Your task to perform on an android device: Go to Google Image 0: 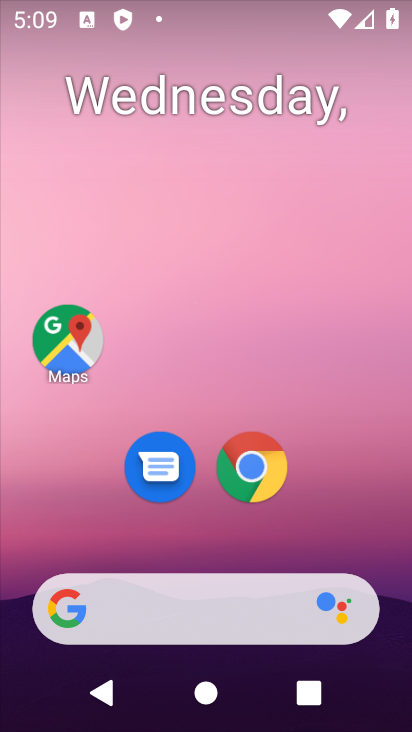
Step 0: drag from (319, 523) to (130, 44)
Your task to perform on an android device: Go to Google Image 1: 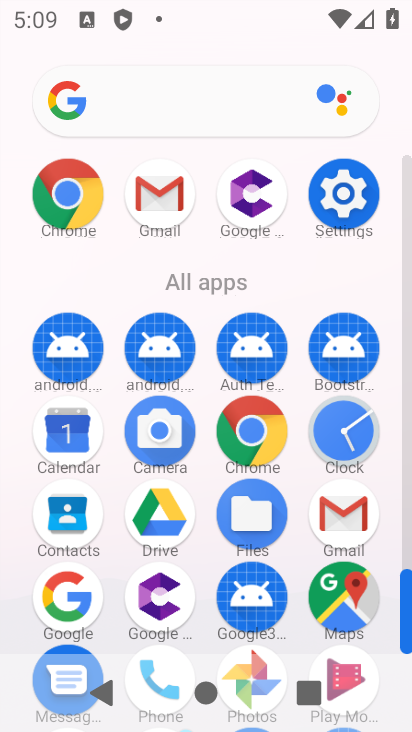
Step 1: click (68, 599)
Your task to perform on an android device: Go to Google Image 2: 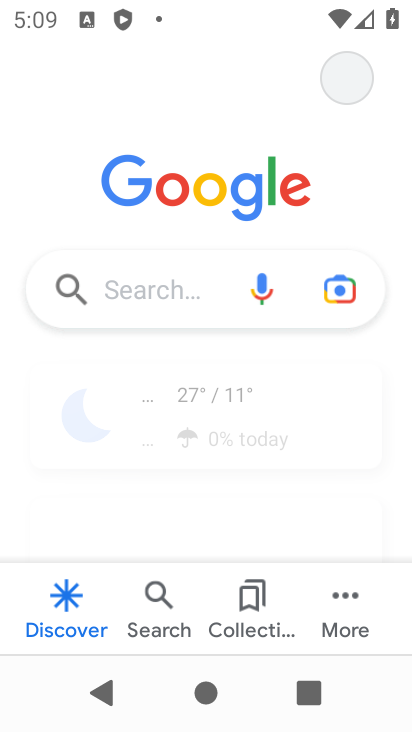
Step 2: task complete